Your task to perform on an android device: Go to notification settings Image 0: 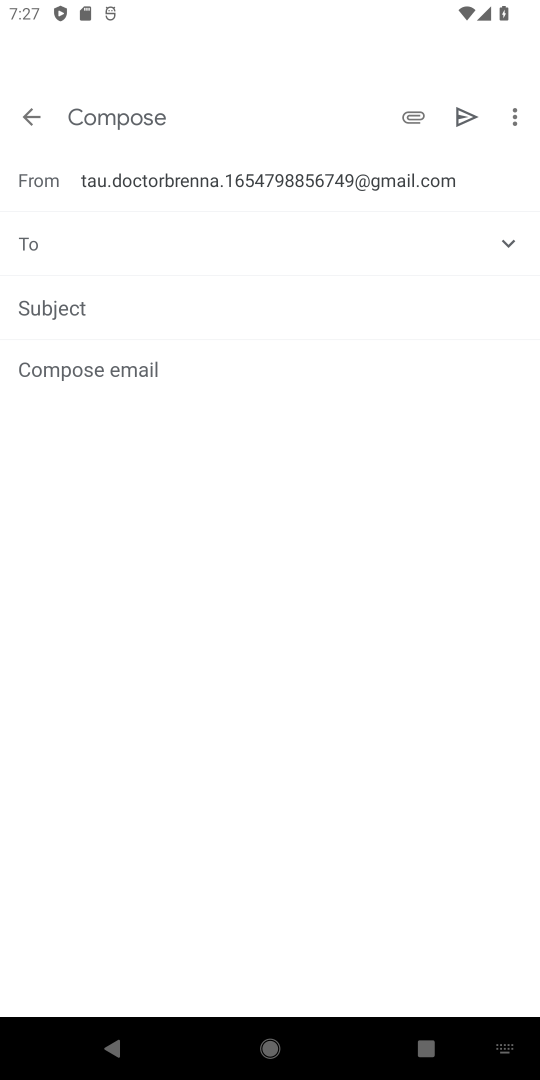
Step 0: press home button
Your task to perform on an android device: Go to notification settings Image 1: 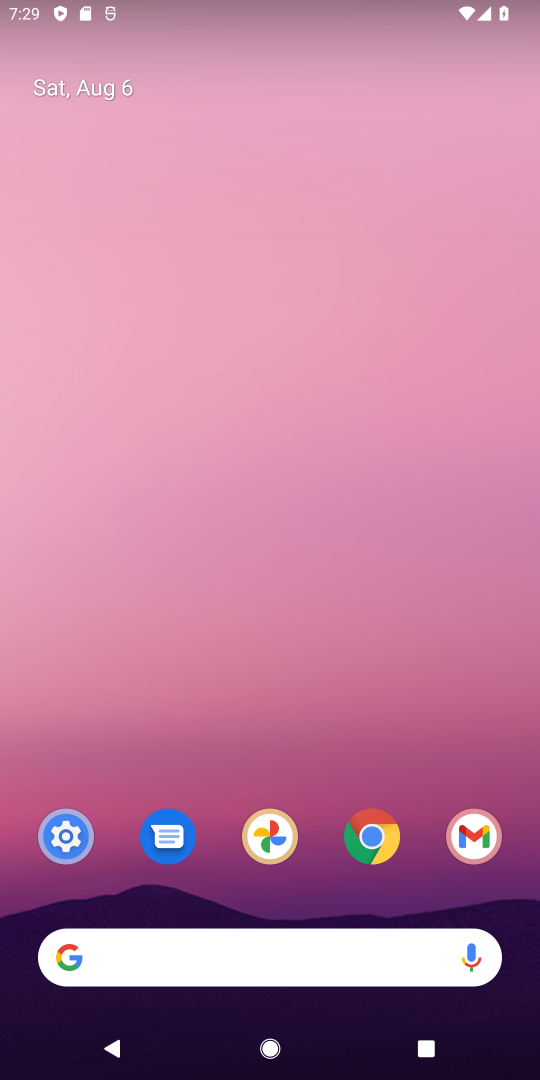
Step 1: drag from (307, 400) to (305, 252)
Your task to perform on an android device: Go to notification settings Image 2: 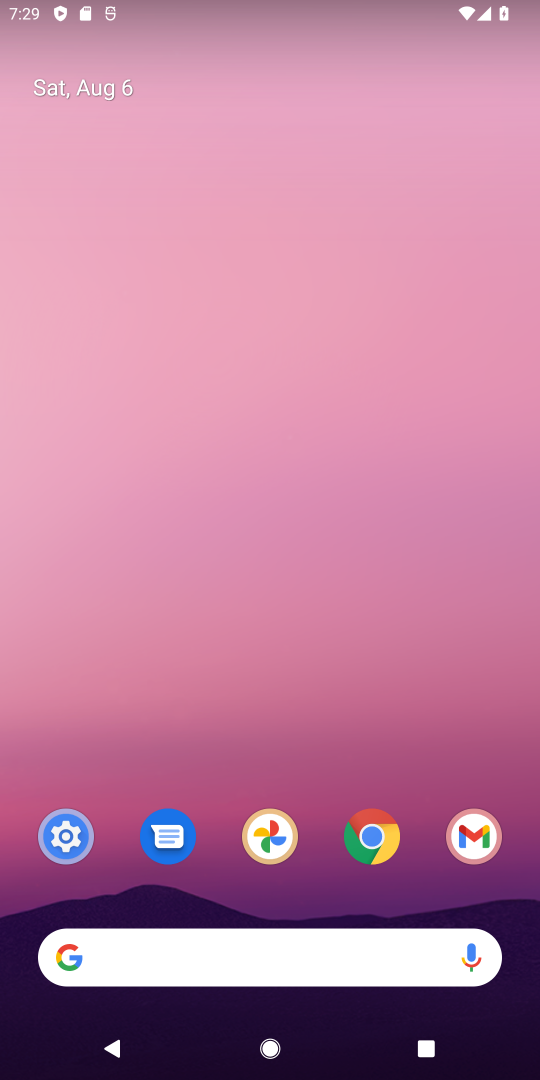
Step 2: drag from (233, 916) to (239, 202)
Your task to perform on an android device: Go to notification settings Image 3: 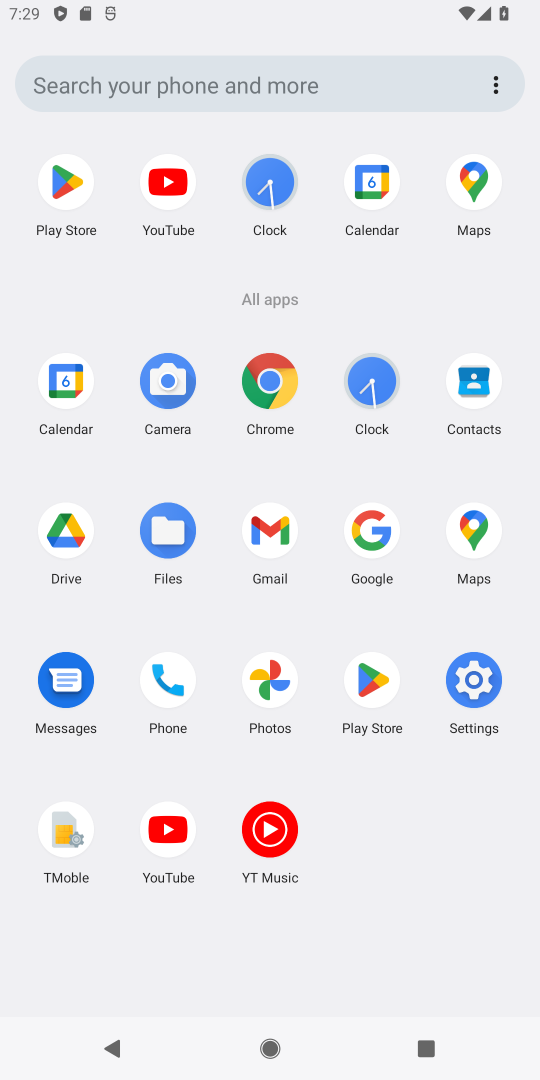
Step 3: click (477, 693)
Your task to perform on an android device: Go to notification settings Image 4: 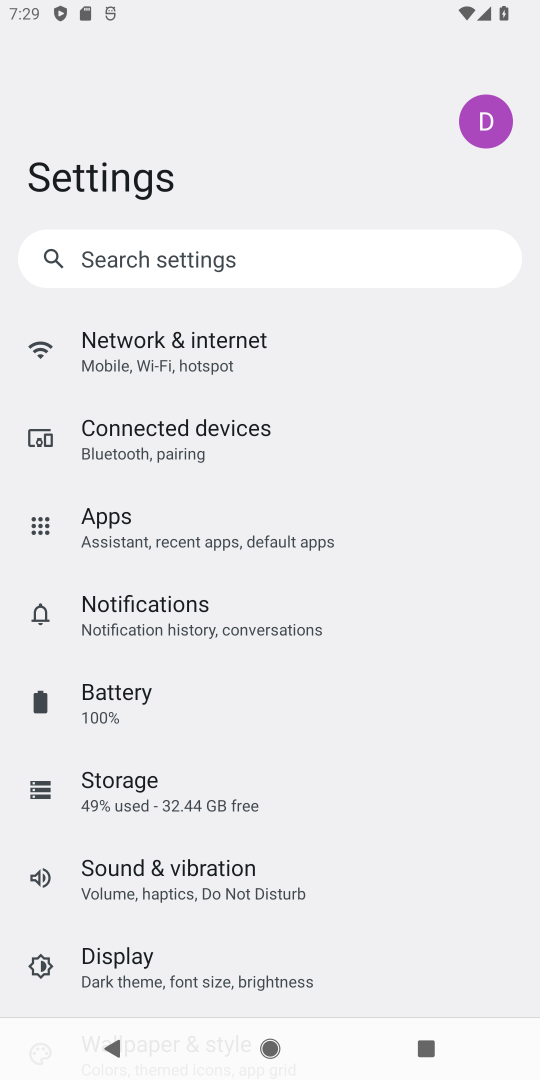
Step 4: click (164, 610)
Your task to perform on an android device: Go to notification settings Image 5: 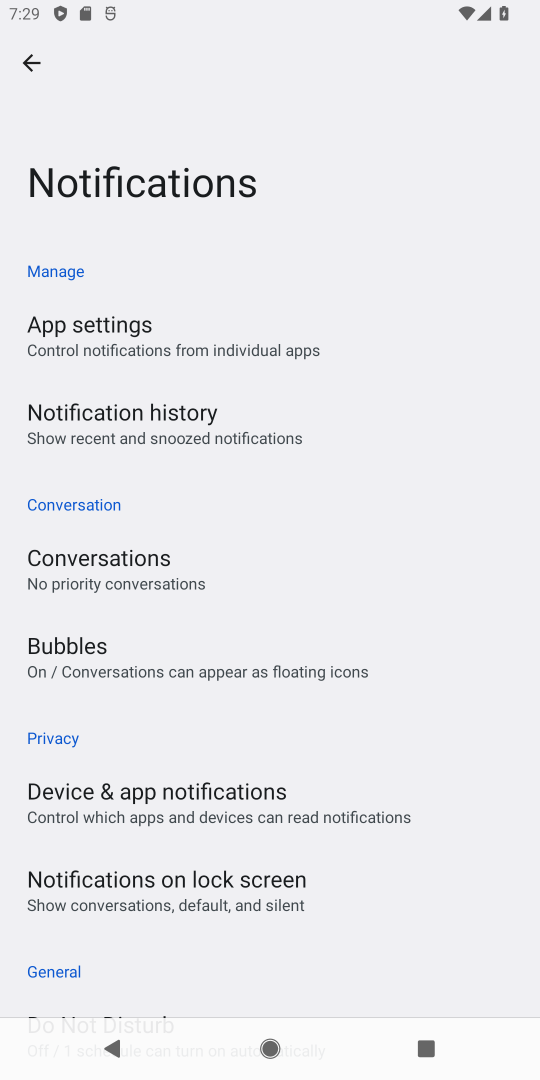
Step 5: task complete